Your task to perform on an android device: Go to accessibility settings Image 0: 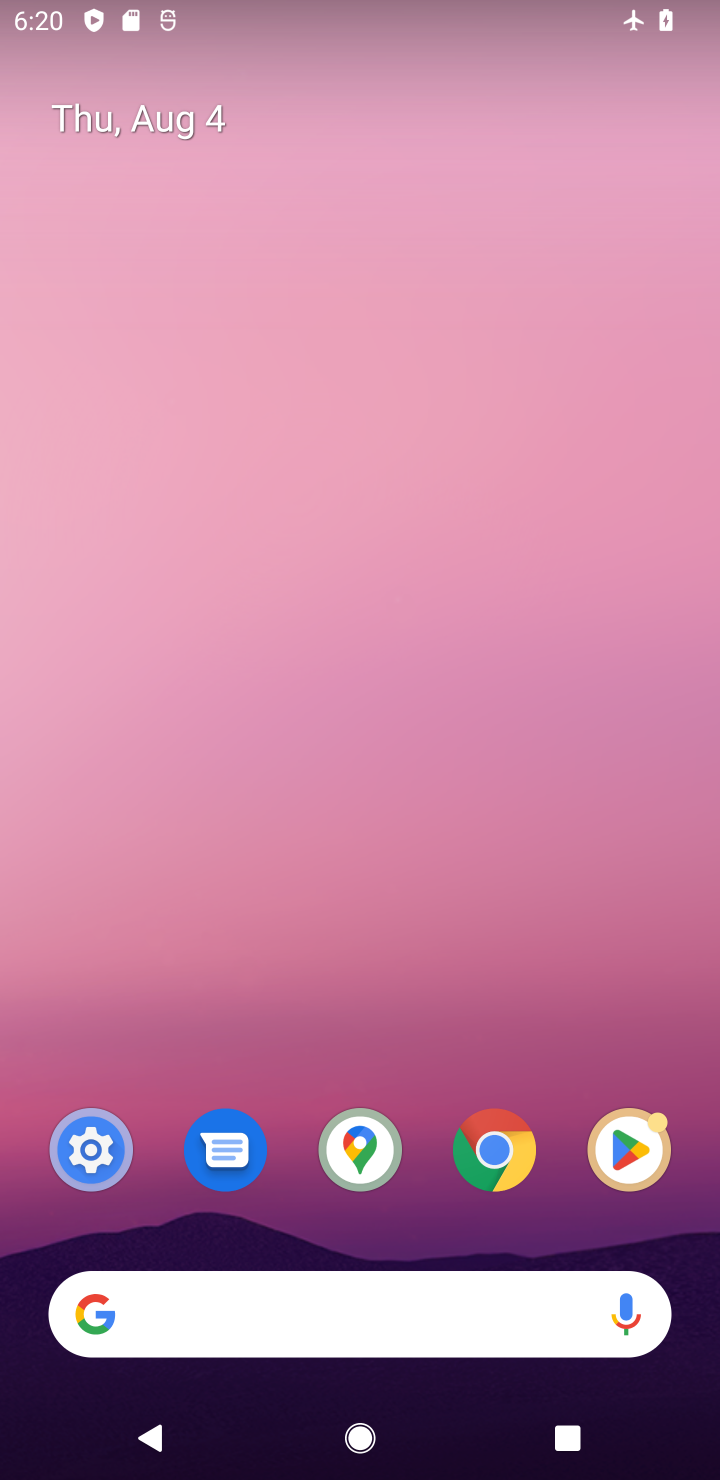
Step 0: drag from (470, 1213) to (578, 29)
Your task to perform on an android device: Go to accessibility settings Image 1: 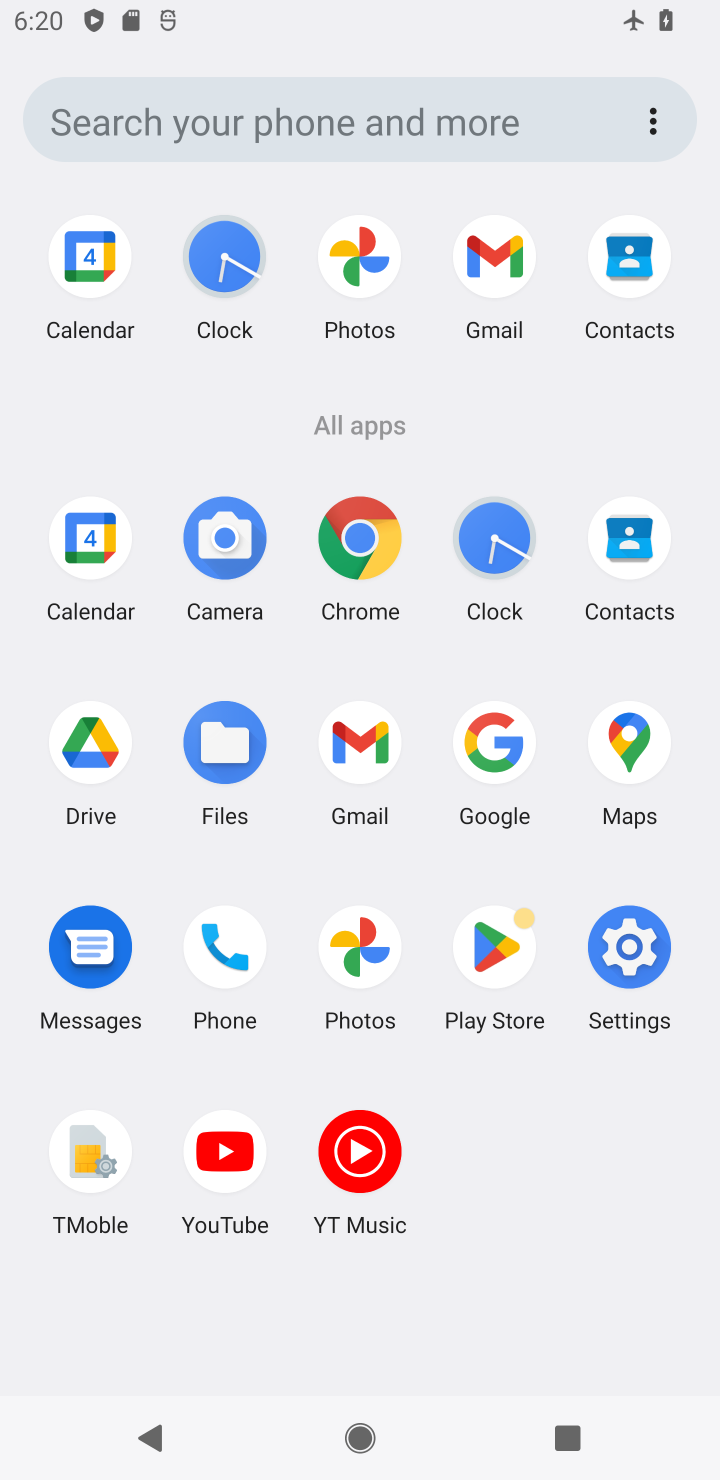
Step 1: click (633, 935)
Your task to perform on an android device: Go to accessibility settings Image 2: 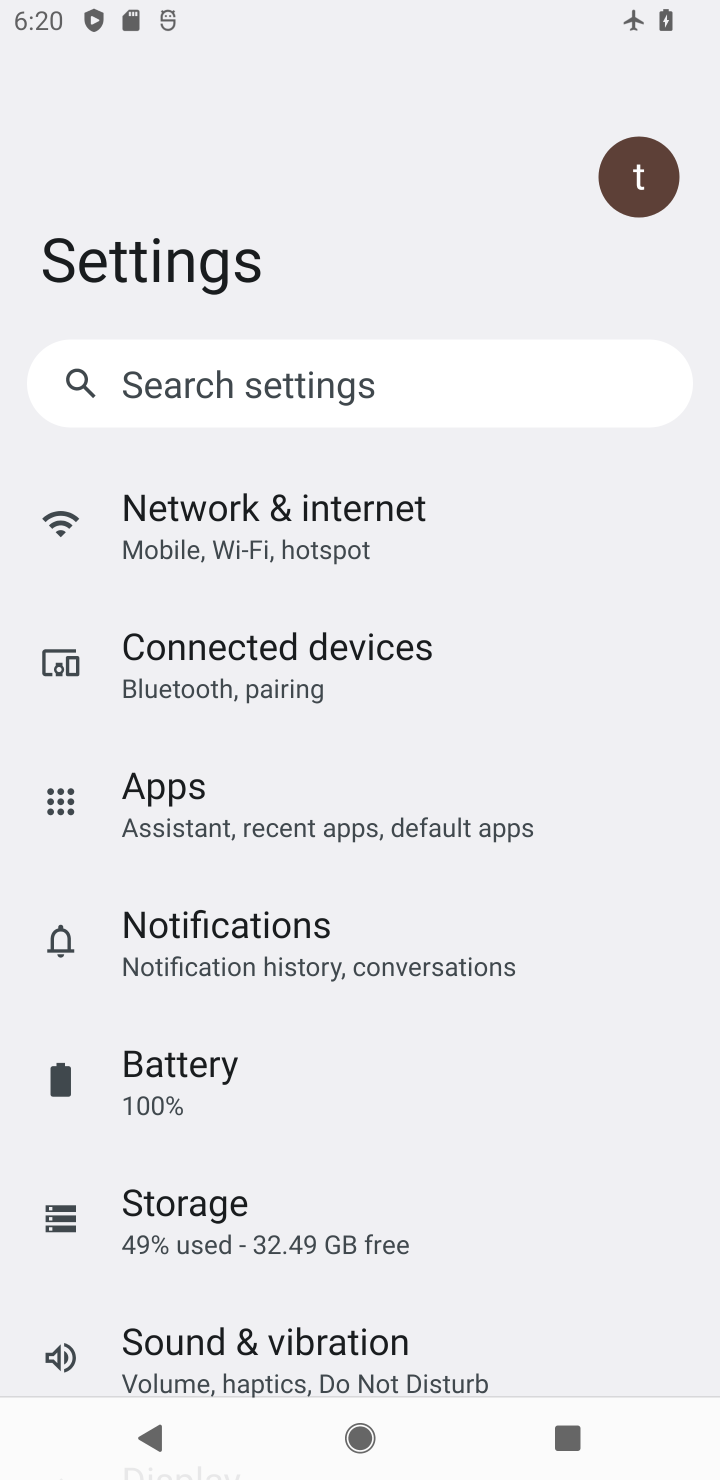
Step 2: drag from (265, 1198) to (282, 98)
Your task to perform on an android device: Go to accessibility settings Image 3: 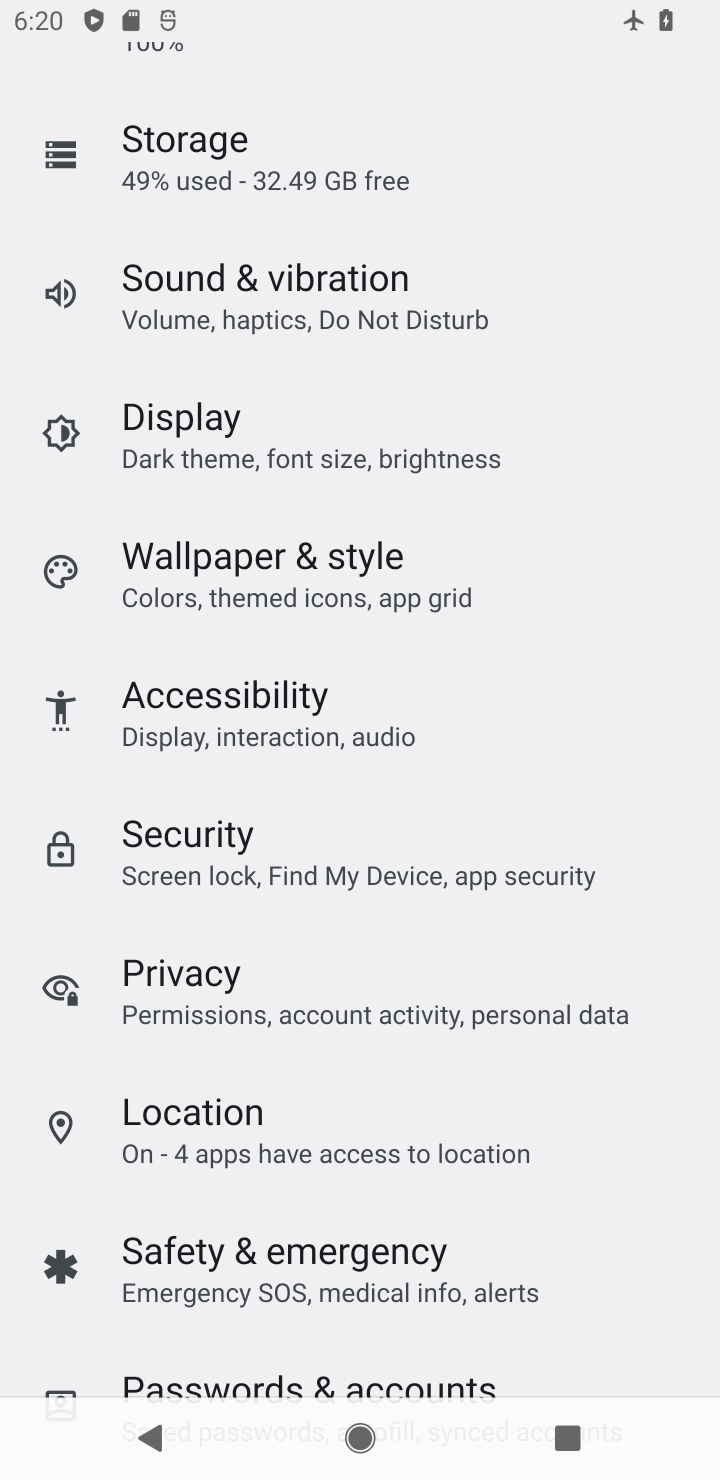
Step 3: click (245, 712)
Your task to perform on an android device: Go to accessibility settings Image 4: 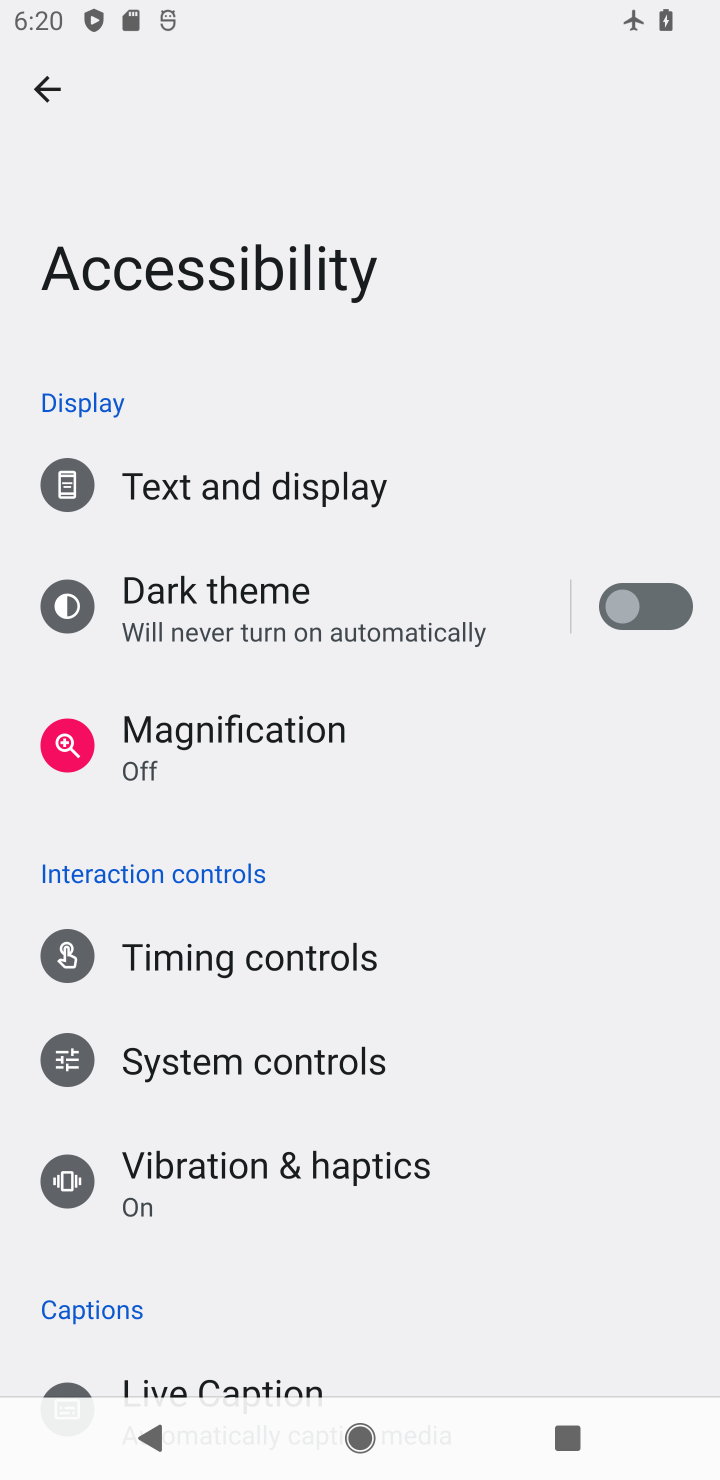
Step 4: task complete